Your task to perform on an android device: toggle improve location accuracy Image 0: 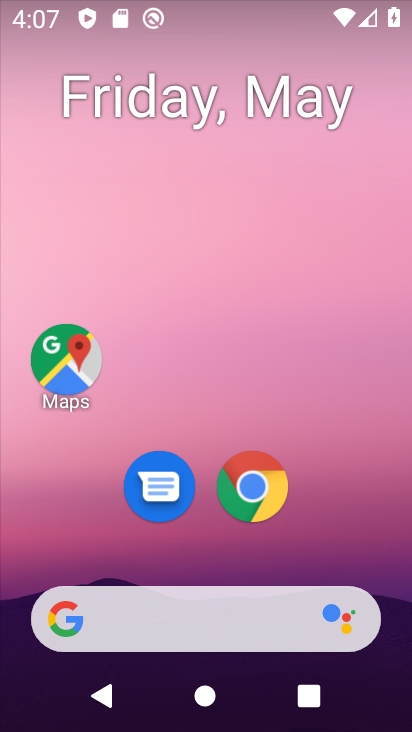
Step 0: click (292, 19)
Your task to perform on an android device: toggle improve location accuracy Image 1: 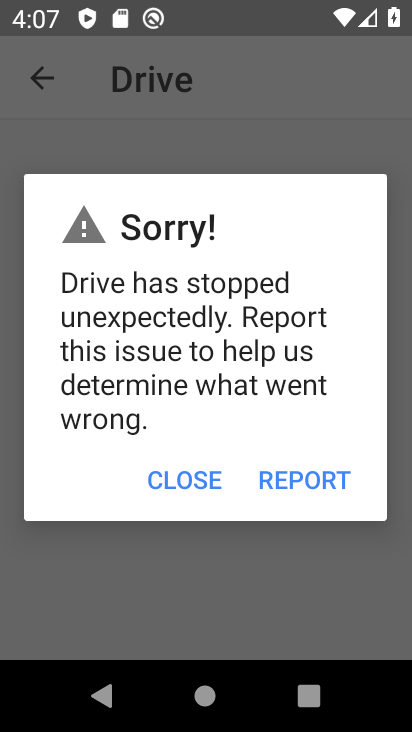
Step 1: press back button
Your task to perform on an android device: toggle improve location accuracy Image 2: 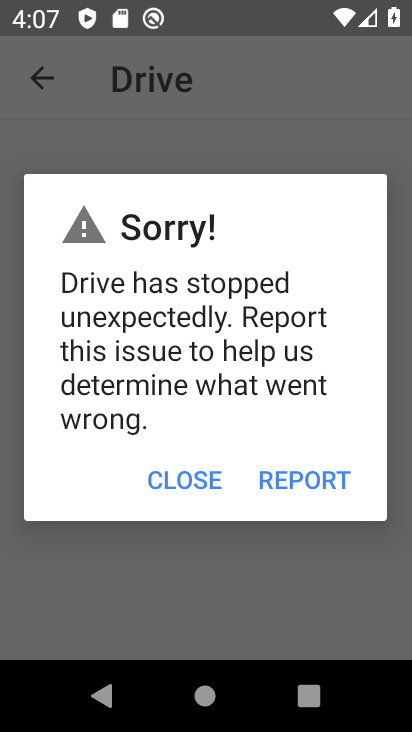
Step 2: press back button
Your task to perform on an android device: toggle improve location accuracy Image 3: 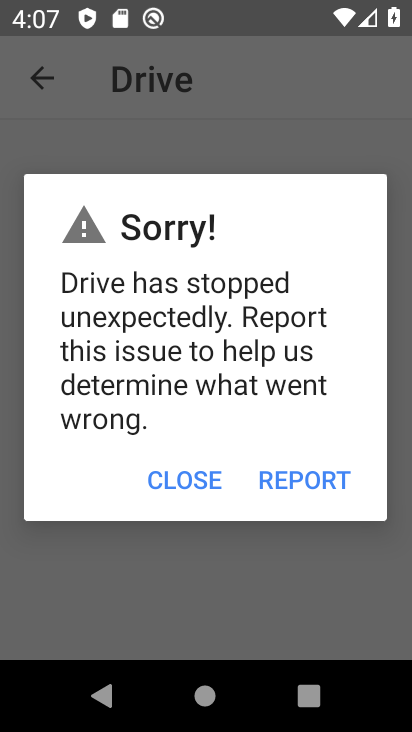
Step 3: press home button
Your task to perform on an android device: toggle improve location accuracy Image 4: 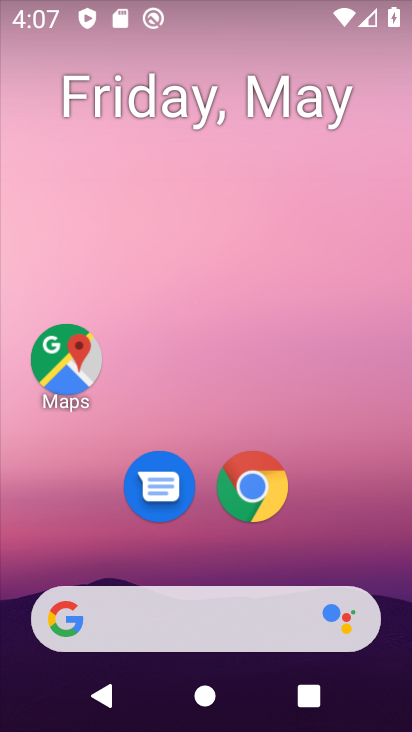
Step 4: drag from (366, 577) to (235, 0)
Your task to perform on an android device: toggle improve location accuracy Image 5: 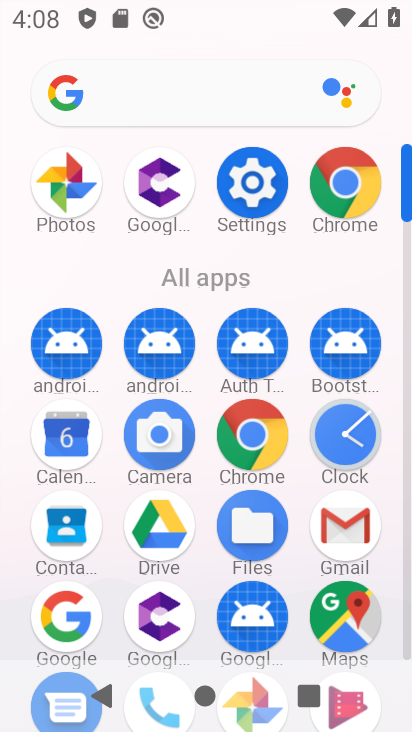
Step 5: click (254, 175)
Your task to perform on an android device: toggle improve location accuracy Image 6: 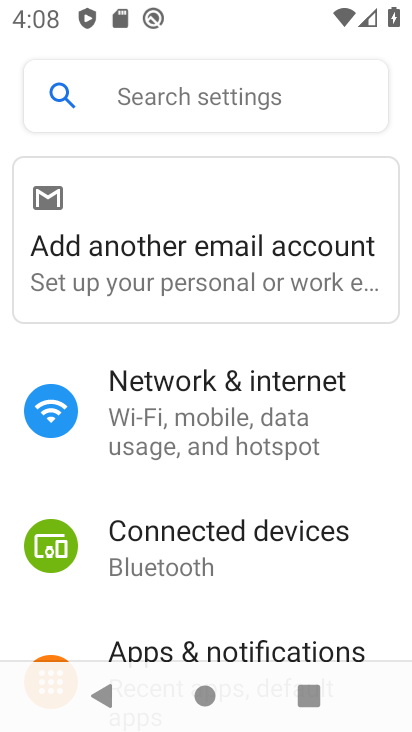
Step 6: drag from (324, 611) to (314, 177)
Your task to perform on an android device: toggle improve location accuracy Image 7: 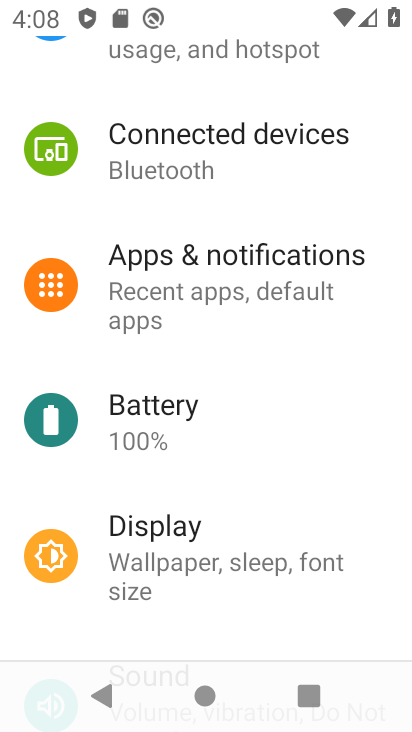
Step 7: drag from (281, 563) to (277, 104)
Your task to perform on an android device: toggle improve location accuracy Image 8: 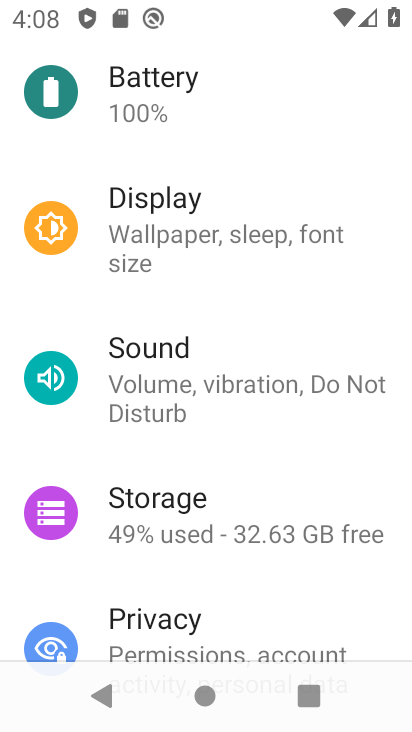
Step 8: drag from (255, 556) to (253, 117)
Your task to perform on an android device: toggle improve location accuracy Image 9: 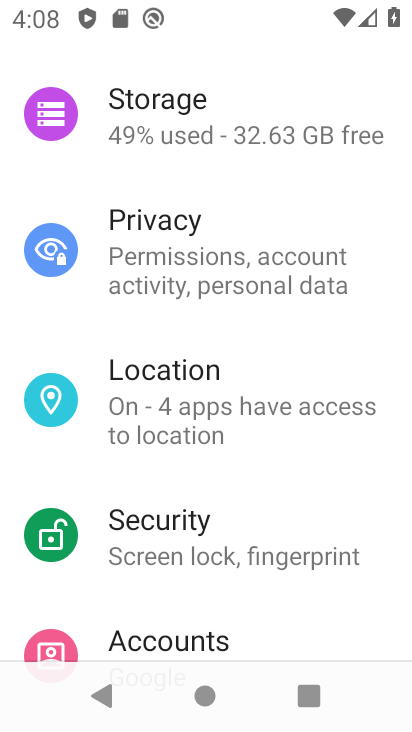
Step 9: click (198, 425)
Your task to perform on an android device: toggle improve location accuracy Image 10: 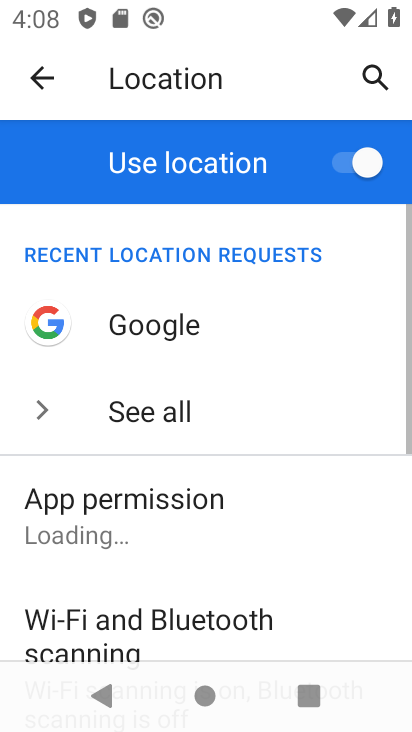
Step 10: drag from (275, 514) to (236, 137)
Your task to perform on an android device: toggle improve location accuracy Image 11: 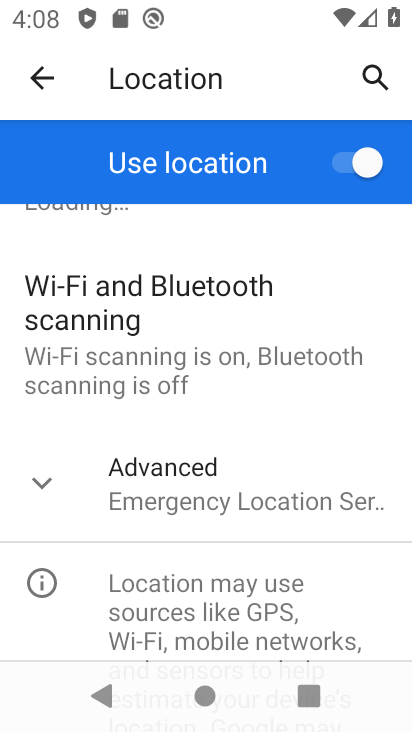
Step 11: click (136, 485)
Your task to perform on an android device: toggle improve location accuracy Image 12: 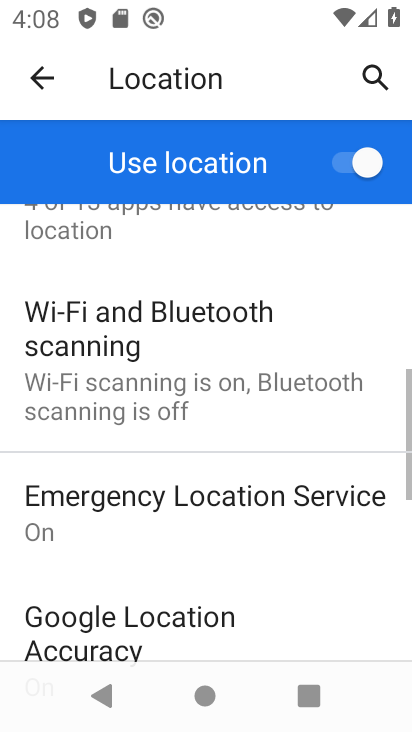
Step 12: drag from (253, 491) to (246, 209)
Your task to perform on an android device: toggle improve location accuracy Image 13: 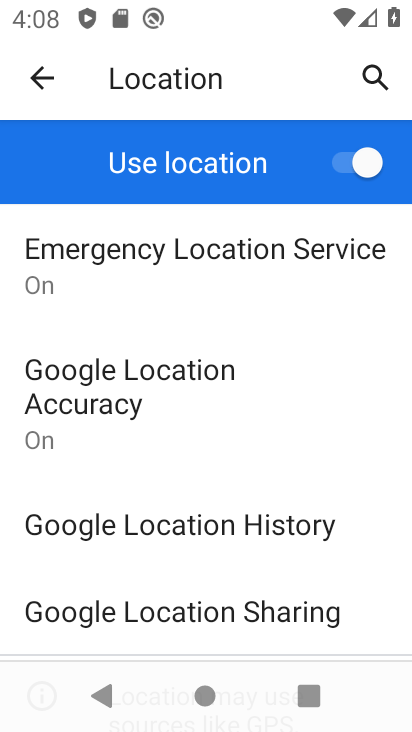
Step 13: click (191, 377)
Your task to perform on an android device: toggle improve location accuracy Image 14: 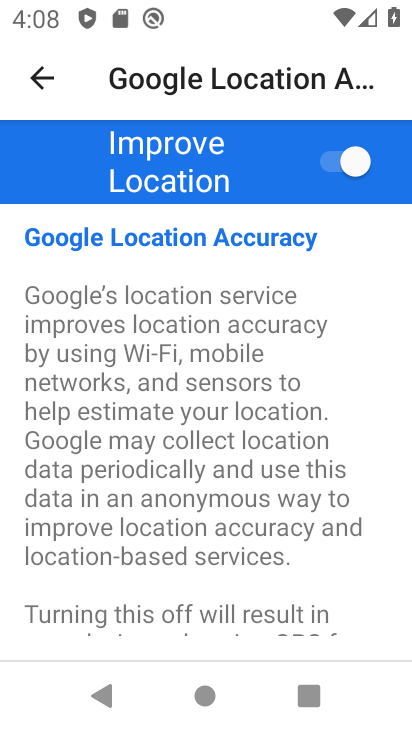
Step 14: click (349, 163)
Your task to perform on an android device: toggle improve location accuracy Image 15: 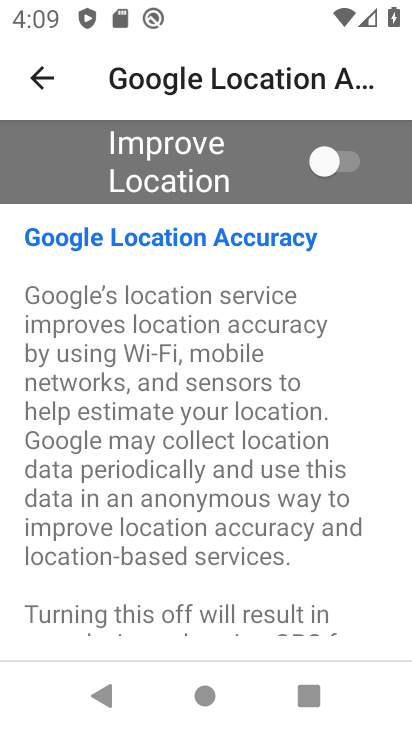
Step 15: task complete